Your task to perform on an android device: Go to network settings Image 0: 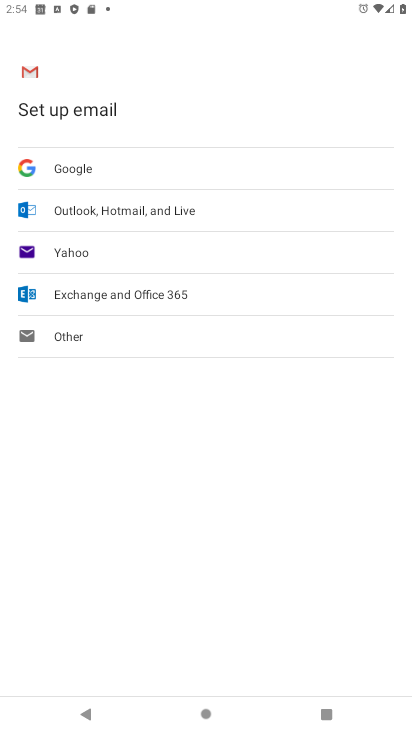
Step 0: press home button
Your task to perform on an android device: Go to network settings Image 1: 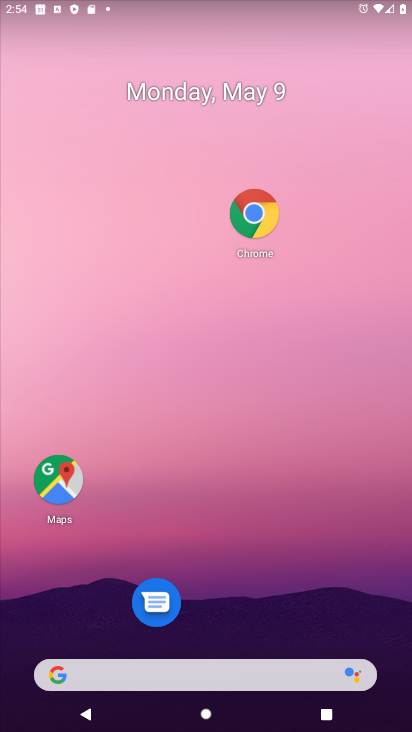
Step 1: drag from (277, 583) to (244, 194)
Your task to perform on an android device: Go to network settings Image 2: 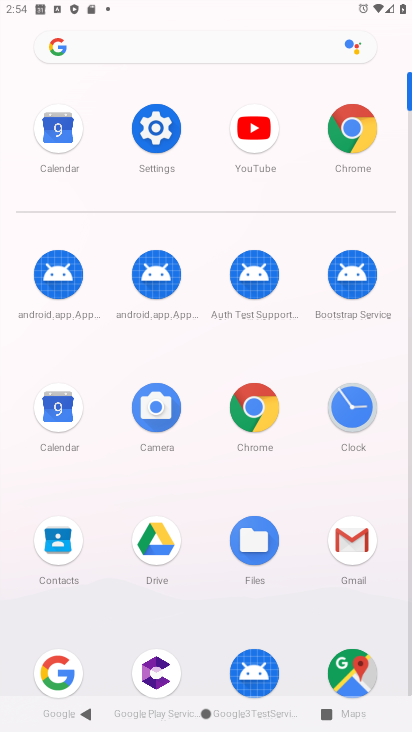
Step 2: click (149, 143)
Your task to perform on an android device: Go to network settings Image 3: 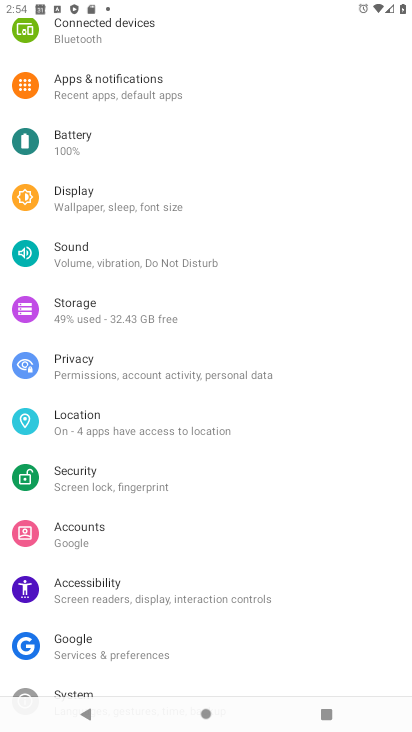
Step 3: drag from (206, 127) to (224, 526)
Your task to perform on an android device: Go to network settings Image 4: 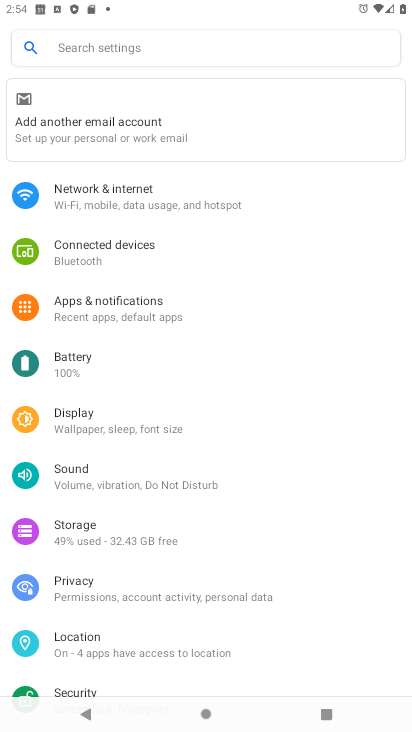
Step 4: click (231, 220)
Your task to perform on an android device: Go to network settings Image 5: 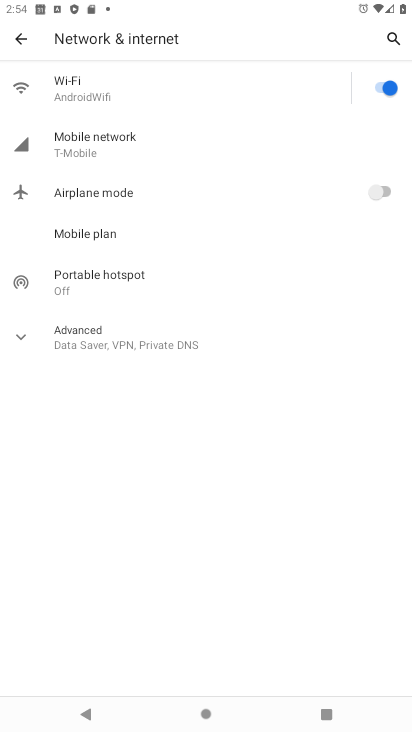
Step 5: task complete